Your task to perform on an android device: allow notifications from all sites in the chrome app Image 0: 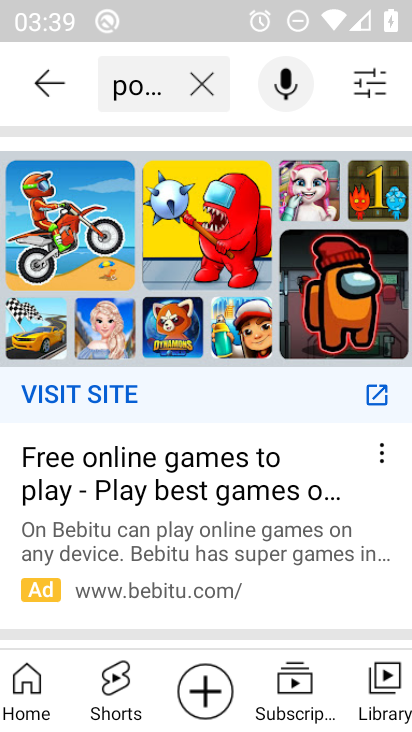
Step 0: press home button
Your task to perform on an android device: allow notifications from all sites in the chrome app Image 1: 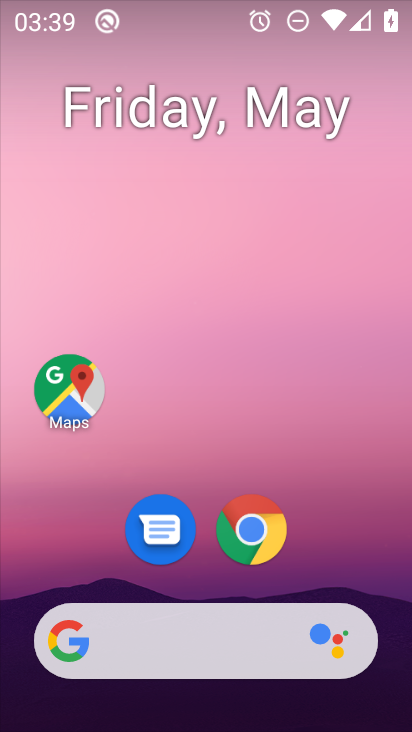
Step 1: click (257, 518)
Your task to perform on an android device: allow notifications from all sites in the chrome app Image 2: 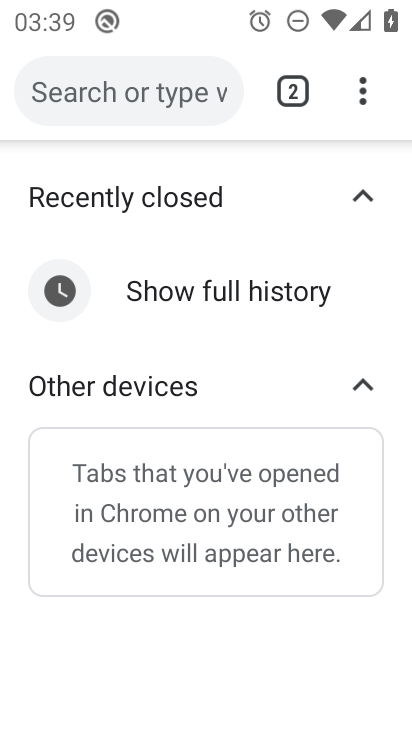
Step 2: click (364, 96)
Your task to perform on an android device: allow notifications from all sites in the chrome app Image 3: 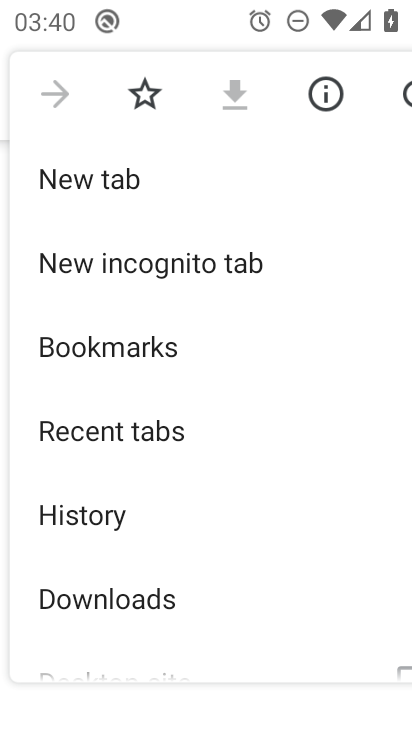
Step 3: drag from (243, 643) to (251, 417)
Your task to perform on an android device: allow notifications from all sites in the chrome app Image 4: 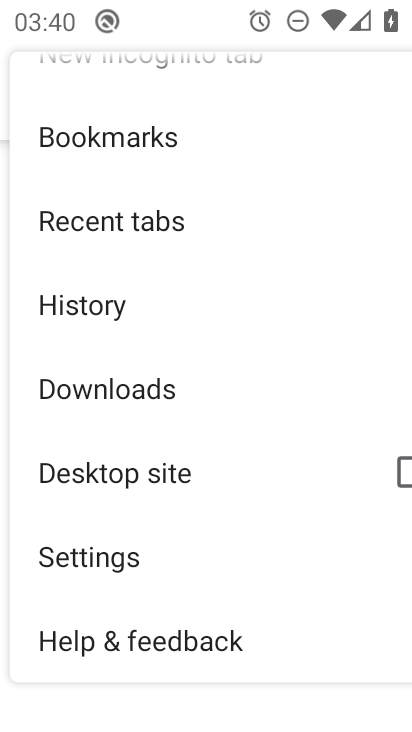
Step 4: click (82, 555)
Your task to perform on an android device: allow notifications from all sites in the chrome app Image 5: 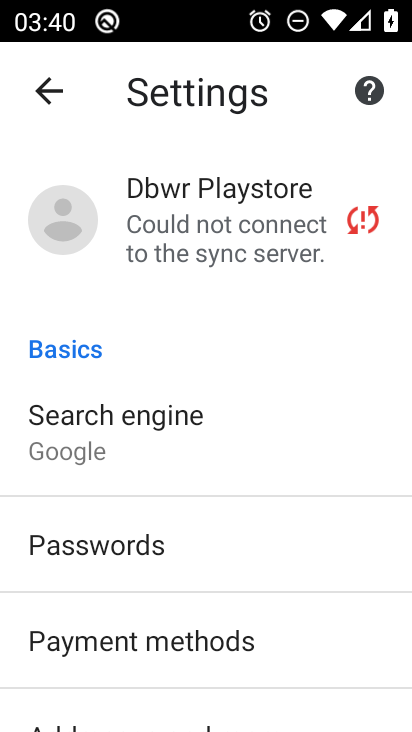
Step 5: drag from (301, 656) to (294, 260)
Your task to perform on an android device: allow notifications from all sites in the chrome app Image 6: 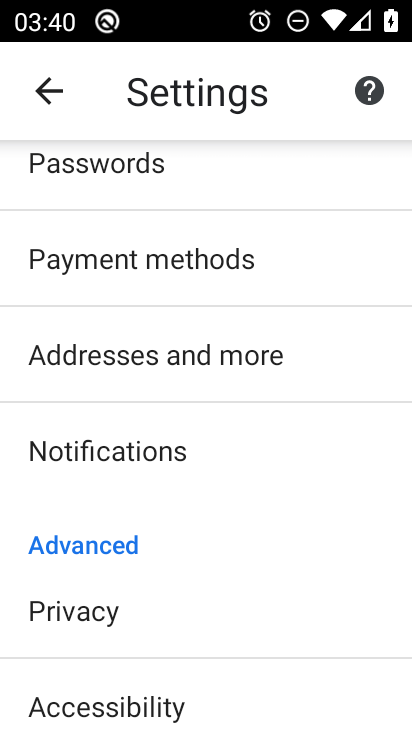
Step 6: drag from (232, 671) to (245, 385)
Your task to perform on an android device: allow notifications from all sites in the chrome app Image 7: 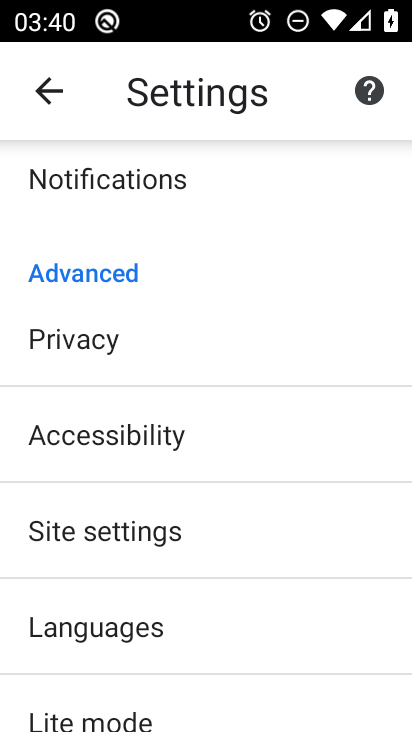
Step 7: click (100, 534)
Your task to perform on an android device: allow notifications from all sites in the chrome app Image 8: 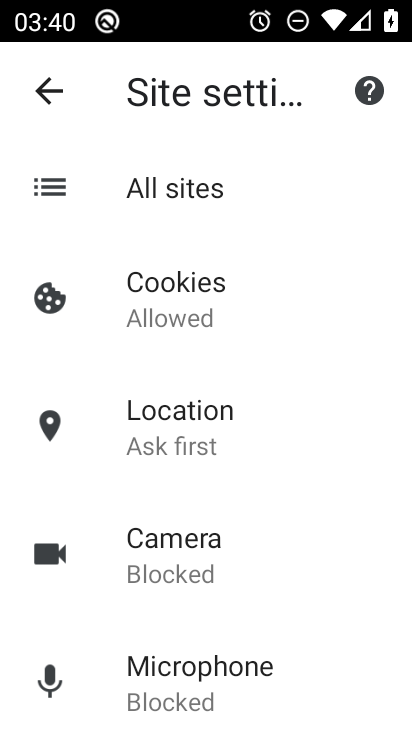
Step 8: drag from (302, 694) to (332, 450)
Your task to perform on an android device: allow notifications from all sites in the chrome app Image 9: 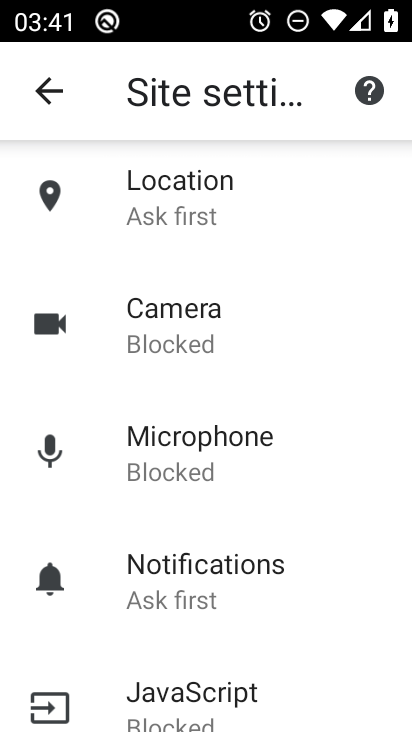
Step 9: click (222, 561)
Your task to perform on an android device: allow notifications from all sites in the chrome app Image 10: 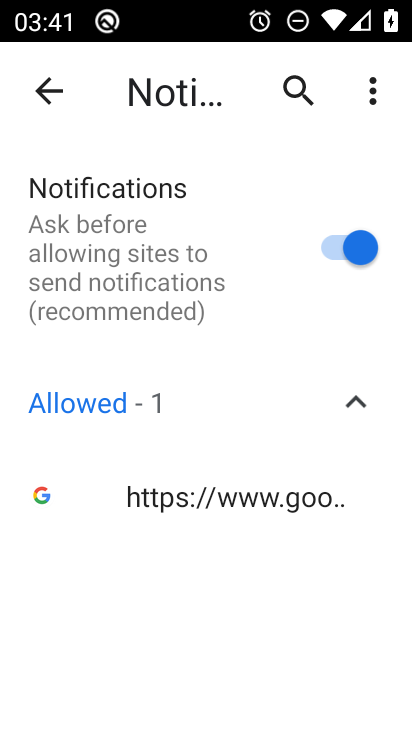
Step 10: task complete